Your task to perform on an android device: Find coffee shops on Maps Image 0: 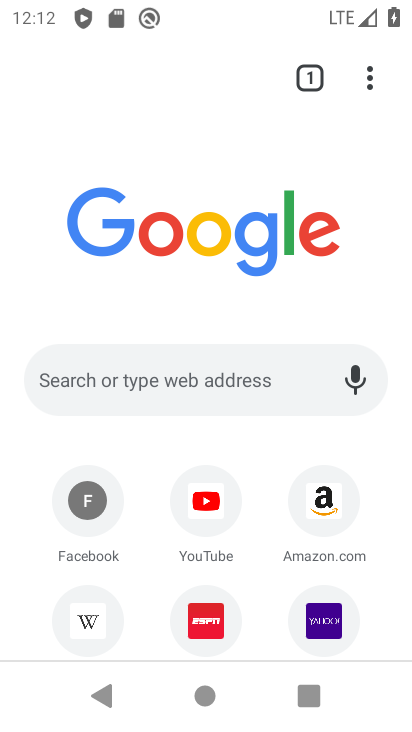
Step 0: press home button
Your task to perform on an android device: Find coffee shops on Maps Image 1: 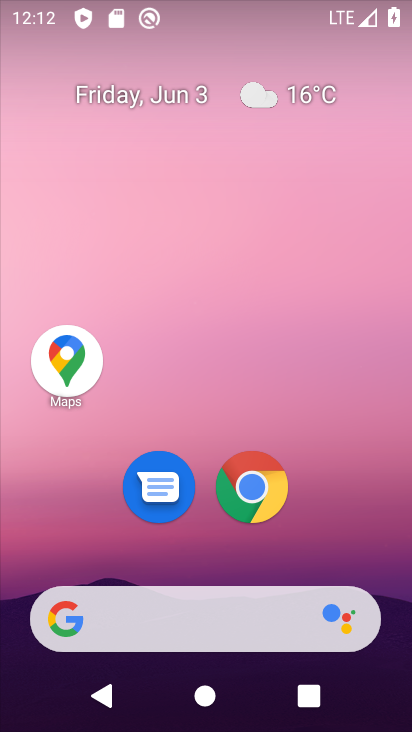
Step 1: click (65, 359)
Your task to perform on an android device: Find coffee shops on Maps Image 2: 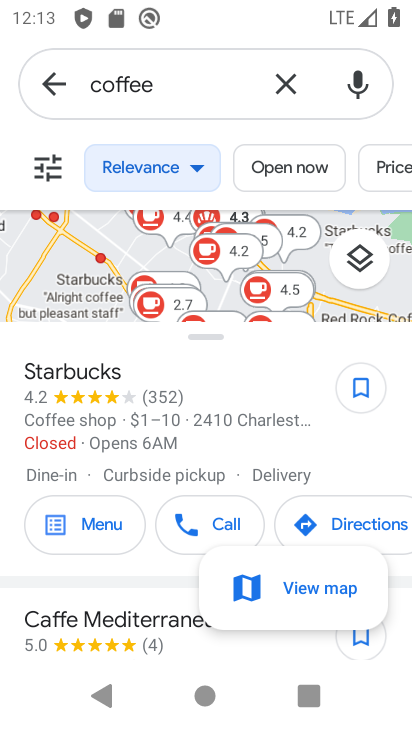
Step 2: task complete